Your task to perform on an android device: Open network settings Image 0: 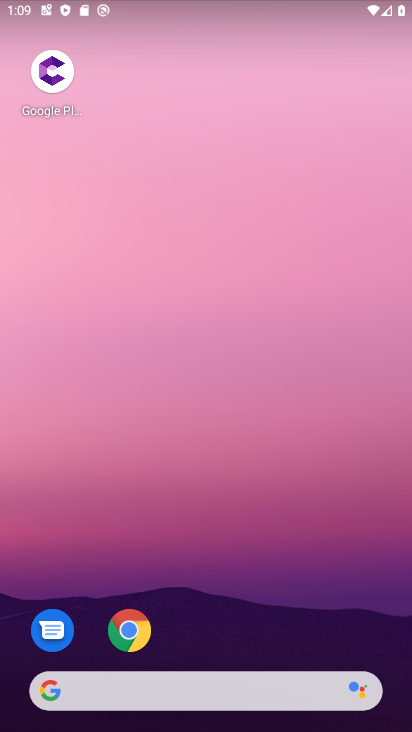
Step 0: drag from (189, 624) to (179, 179)
Your task to perform on an android device: Open network settings Image 1: 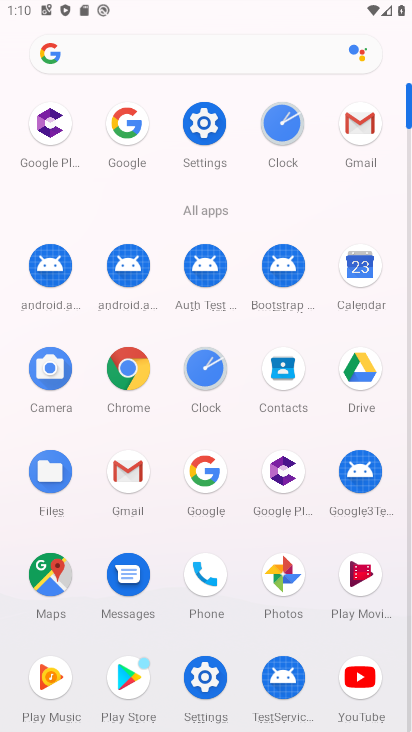
Step 1: click (203, 136)
Your task to perform on an android device: Open network settings Image 2: 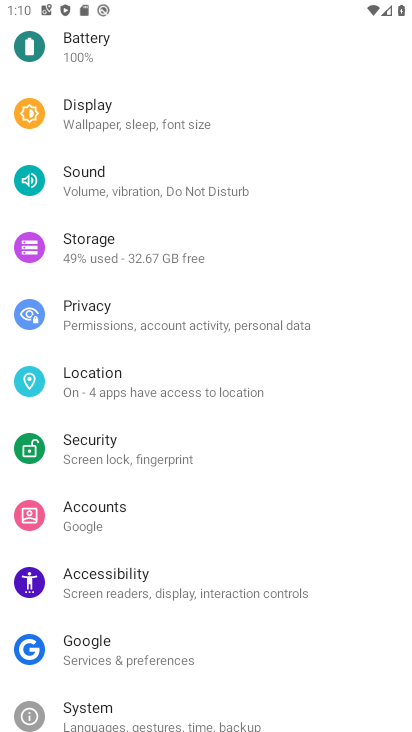
Step 2: drag from (203, 136) to (243, 544)
Your task to perform on an android device: Open network settings Image 3: 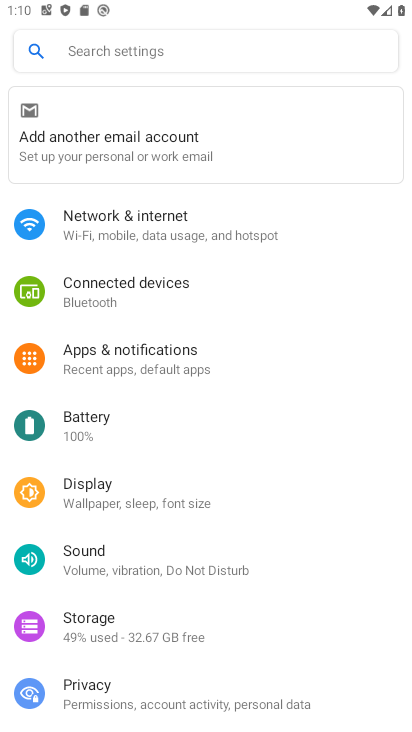
Step 3: click (123, 226)
Your task to perform on an android device: Open network settings Image 4: 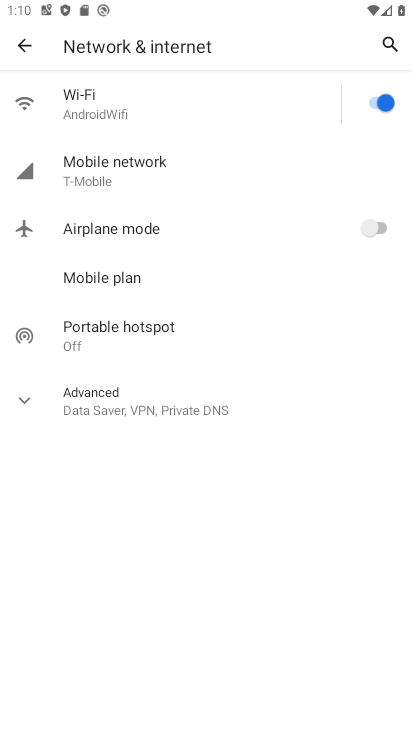
Step 4: click (163, 180)
Your task to perform on an android device: Open network settings Image 5: 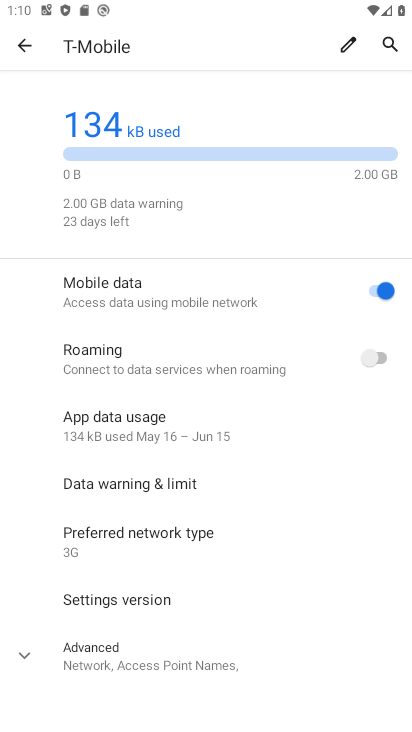
Step 5: task complete